Your task to perform on an android device: toggle priority inbox in the gmail app Image 0: 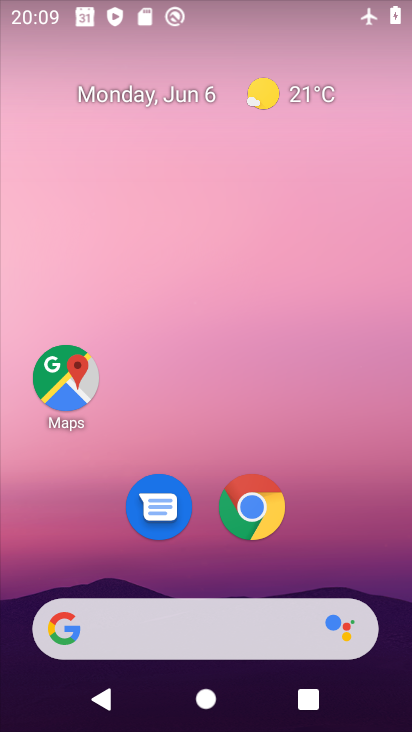
Step 0: drag from (203, 572) to (298, 22)
Your task to perform on an android device: toggle priority inbox in the gmail app Image 1: 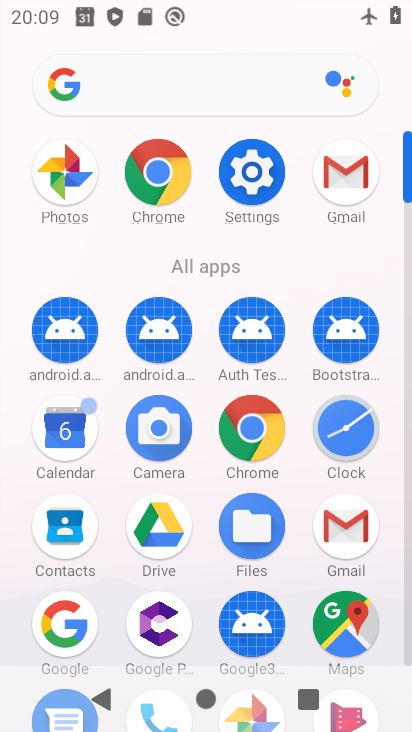
Step 1: click (343, 194)
Your task to perform on an android device: toggle priority inbox in the gmail app Image 2: 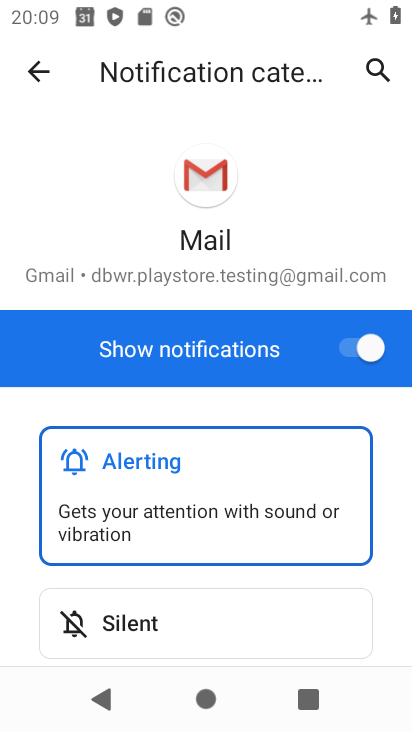
Step 2: click (39, 69)
Your task to perform on an android device: toggle priority inbox in the gmail app Image 3: 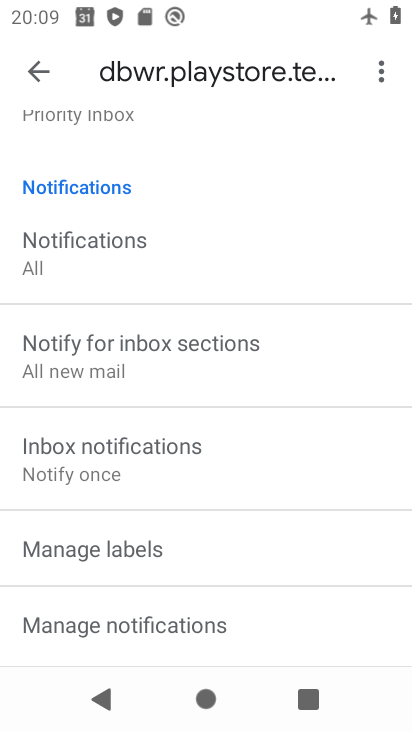
Step 3: drag from (170, 296) to (159, 701)
Your task to perform on an android device: toggle priority inbox in the gmail app Image 4: 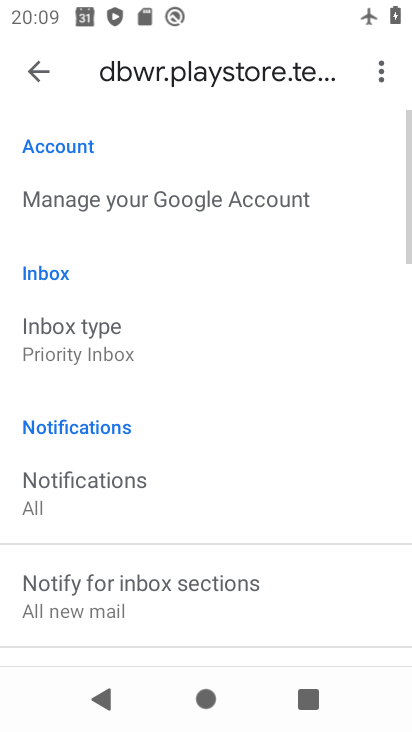
Step 4: click (79, 338)
Your task to perform on an android device: toggle priority inbox in the gmail app Image 5: 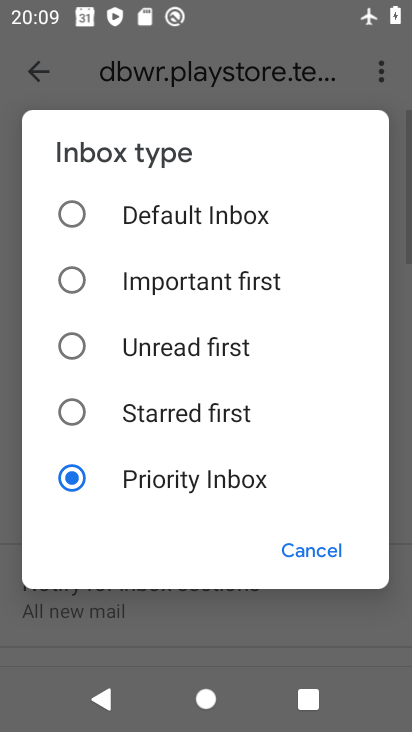
Step 5: click (76, 344)
Your task to perform on an android device: toggle priority inbox in the gmail app Image 6: 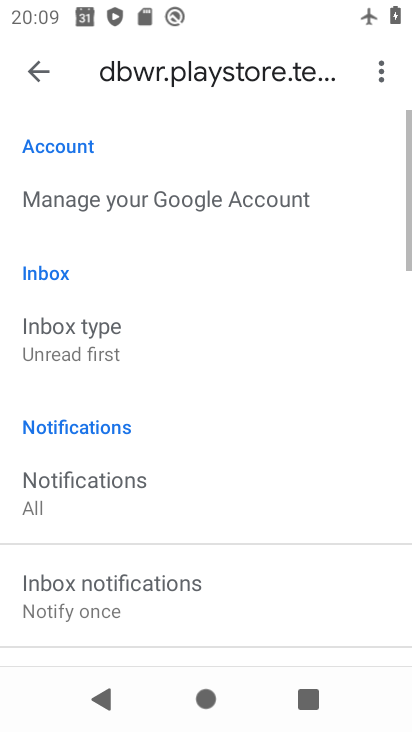
Step 6: task complete